Your task to perform on an android device: Show me popular videos on Youtube Image 0: 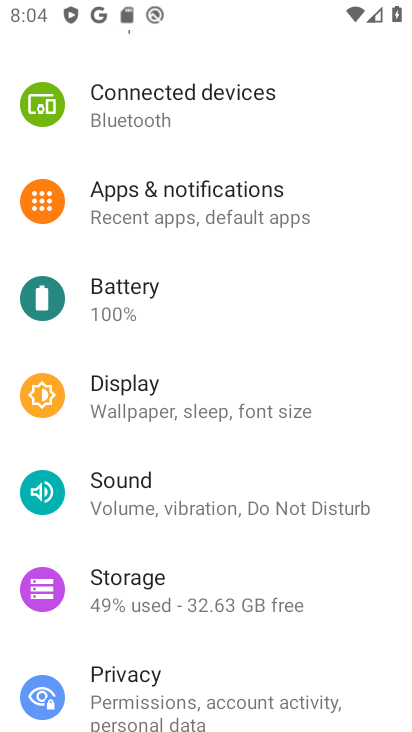
Step 0: press home button
Your task to perform on an android device: Show me popular videos on Youtube Image 1: 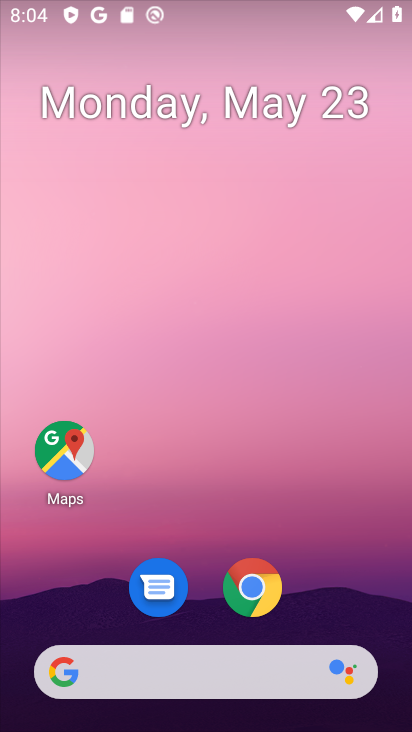
Step 1: drag from (155, 527) to (246, 27)
Your task to perform on an android device: Show me popular videos on Youtube Image 2: 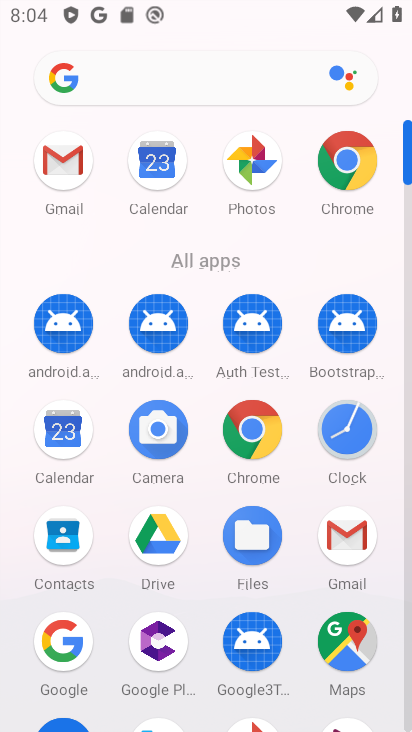
Step 2: drag from (185, 521) to (233, 125)
Your task to perform on an android device: Show me popular videos on Youtube Image 3: 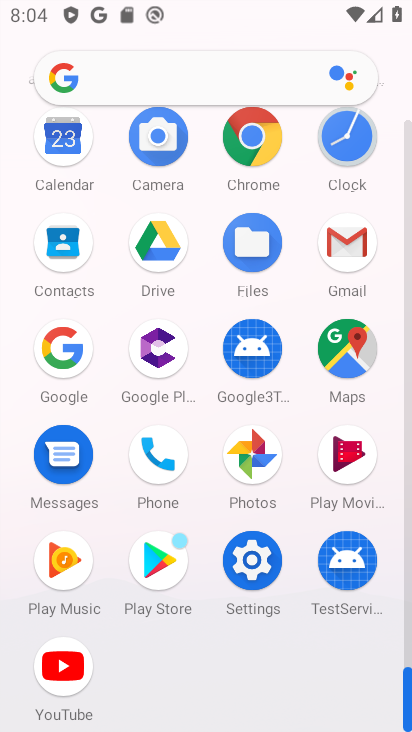
Step 3: click (67, 667)
Your task to perform on an android device: Show me popular videos on Youtube Image 4: 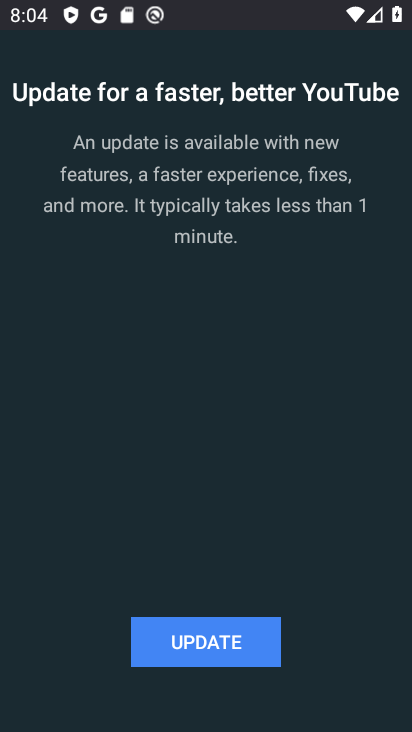
Step 4: click (242, 640)
Your task to perform on an android device: Show me popular videos on Youtube Image 5: 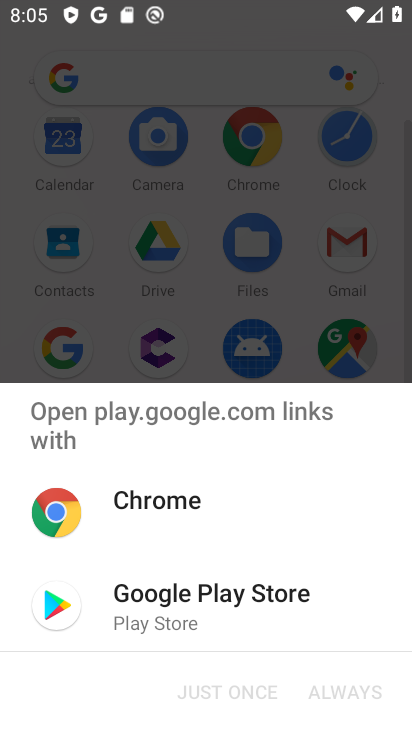
Step 5: click (123, 596)
Your task to perform on an android device: Show me popular videos on Youtube Image 6: 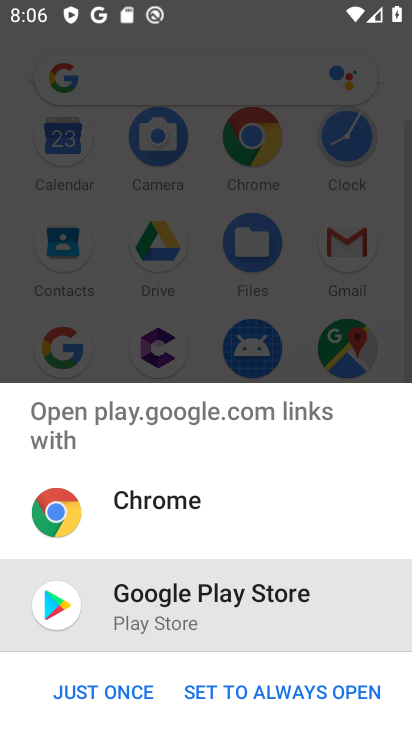
Step 6: click (108, 674)
Your task to perform on an android device: Show me popular videos on Youtube Image 7: 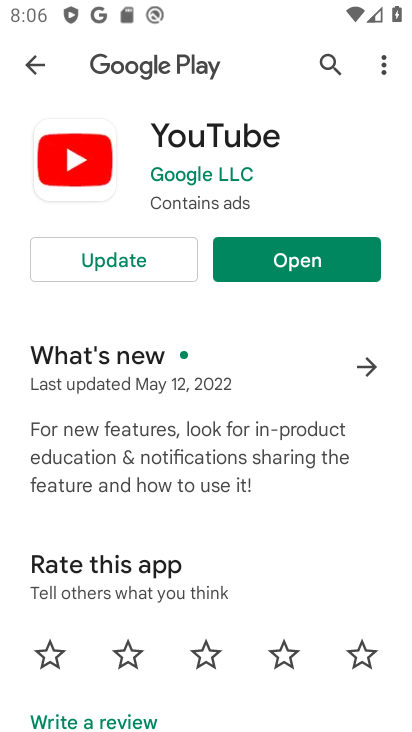
Step 7: click (100, 257)
Your task to perform on an android device: Show me popular videos on Youtube Image 8: 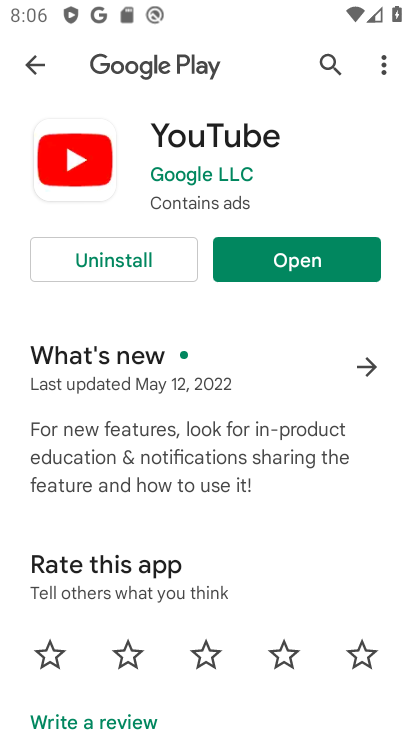
Step 8: click (292, 266)
Your task to perform on an android device: Show me popular videos on Youtube Image 9: 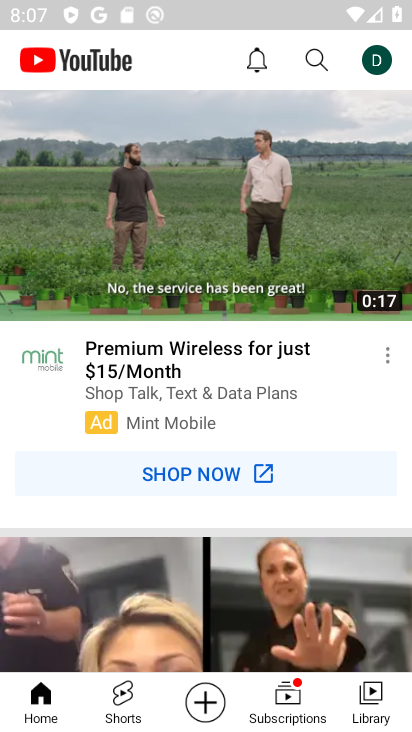
Step 9: drag from (138, 255) to (106, 582)
Your task to perform on an android device: Show me popular videos on Youtube Image 10: 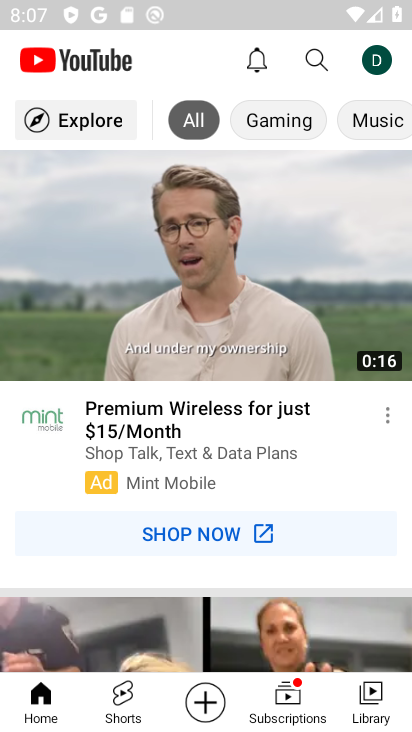
Step 10: click (85, 111)
Your task to perform on an android device: Show me popular videos on Youtube Image 11: 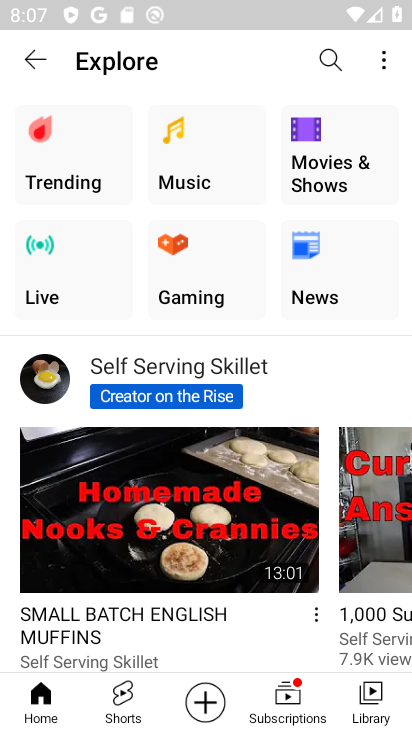
Step 11: click (60, 143)
Your task to perform on an android device: Show me popular videos on Youtube Image 12: 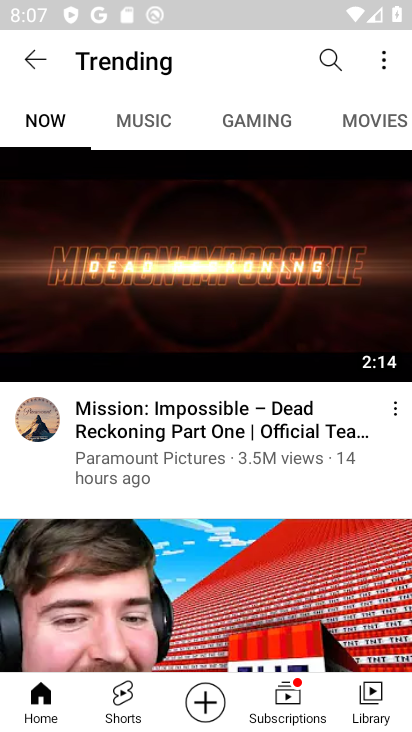
Step 12: task complete